Your task to perform on an android device: turn off priority inbox in the gmail app Image 0: 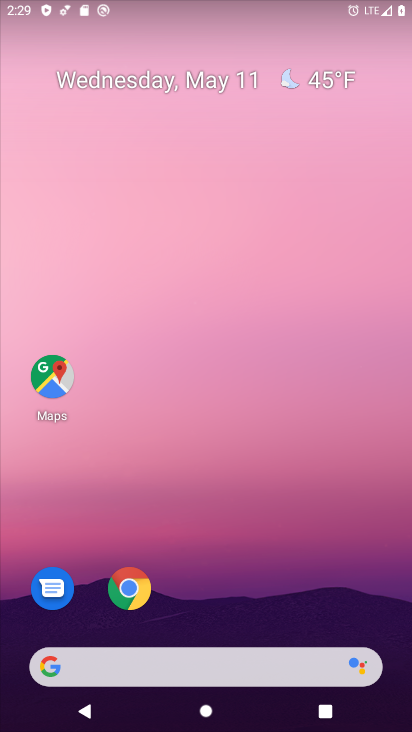
Step 0: drag from (237, 597) to (222, 272)
Your task to perform on an android device: turn off priority inbox in the gmail app Image 1: 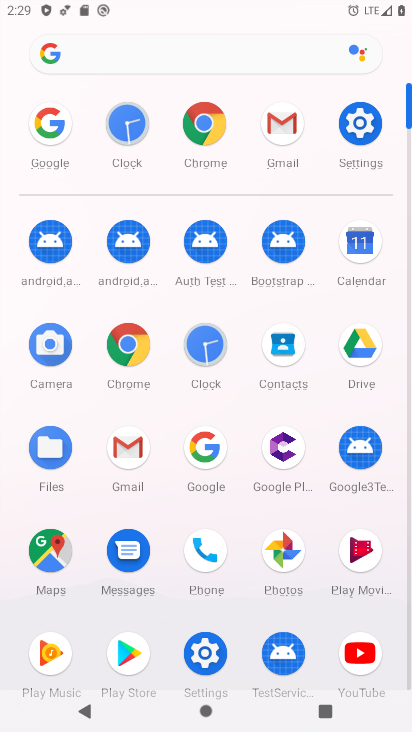
Step 1: click (283, 133)
Your task to perform on an android device: turn off priority inbox in the gmail app Image 2: 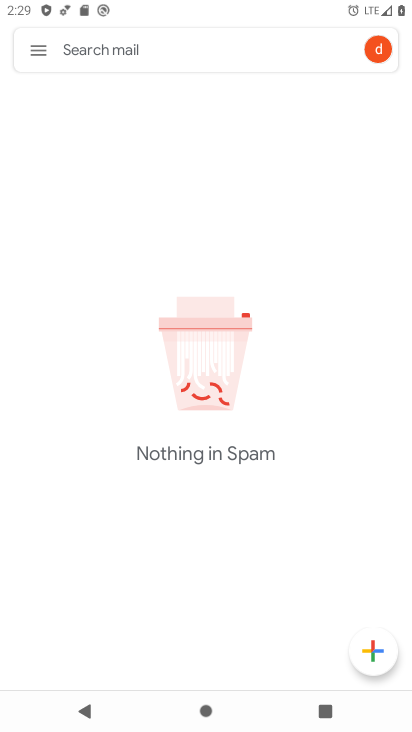
Step 2: click (37, 56)
Your task to perform on an android device: turn off priority inbox in the gmail app Image 3: 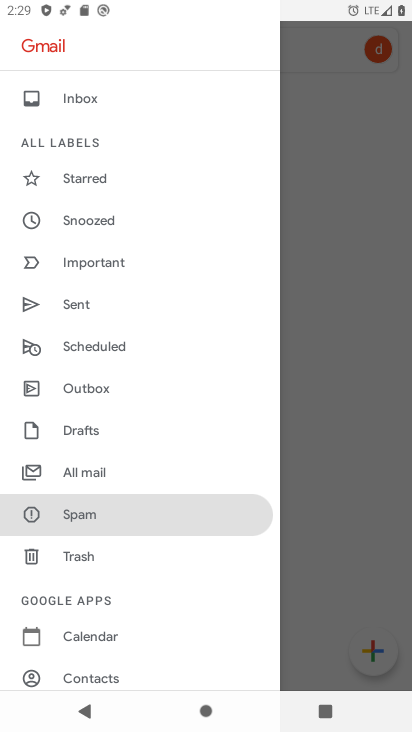
Step 3: drag from (124, 651) to (135, 361)
Your task to perform on an android device: turn off priority inbox in the gmail app Image 4: 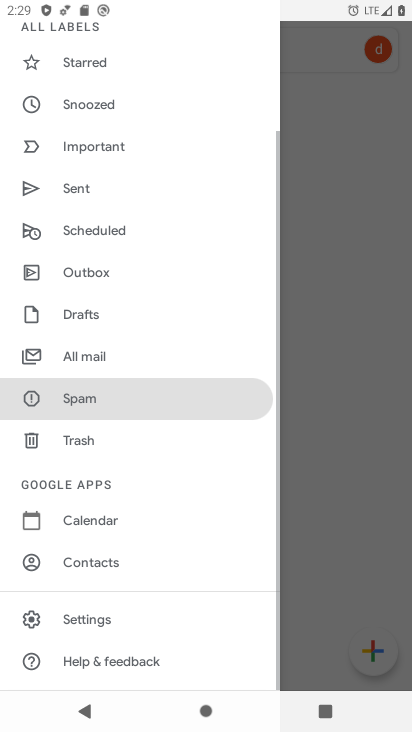
Step 4: click (120, 620)
Your task to perform on an android device: turn off priority inbox in the gmail app Image 5: 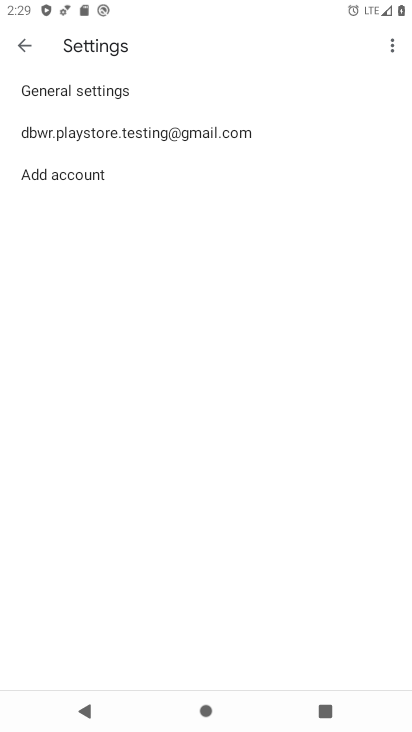
Step 5: click (149, 140)
Your task to perform on an android device: turn off priority inbox in the gmail app Image 6: 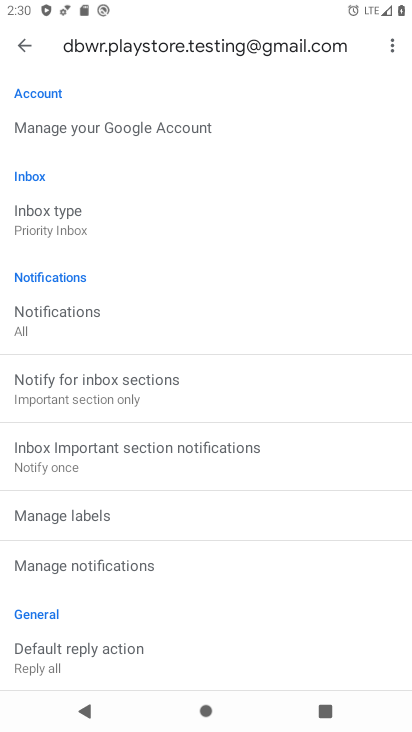
Step 6: click (82, 224)
Your task to perform on an android device: turn off priority inbox in the gmail app Image 7: 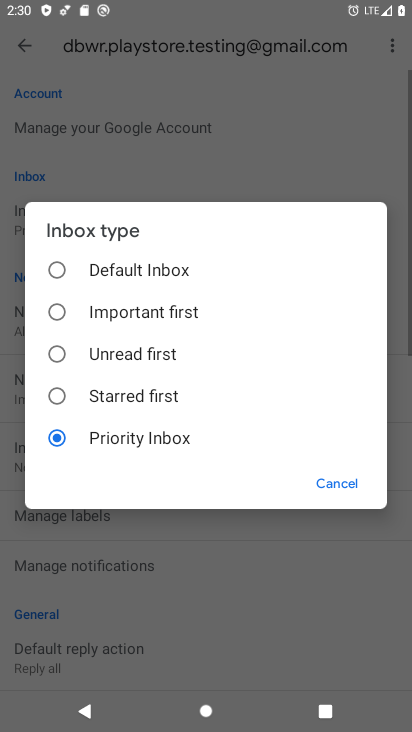
Step 7: click (90, 280)
Your task to perform on an android device: turn off priority inbox in the gmail app Image 8: 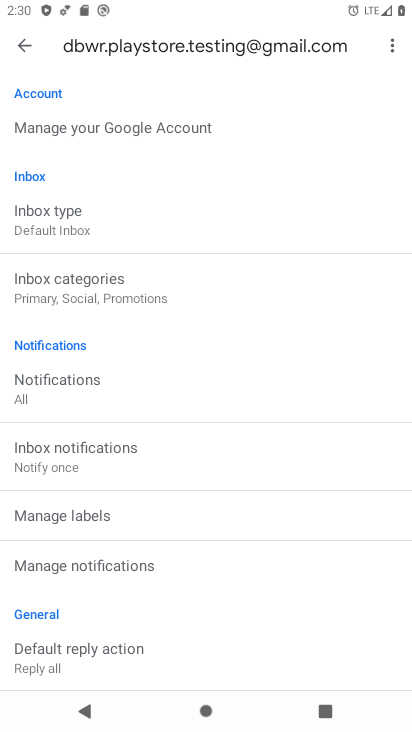
Step 8: task complete